Your task to perform on an android device: change the upload size in google photos Image 0: 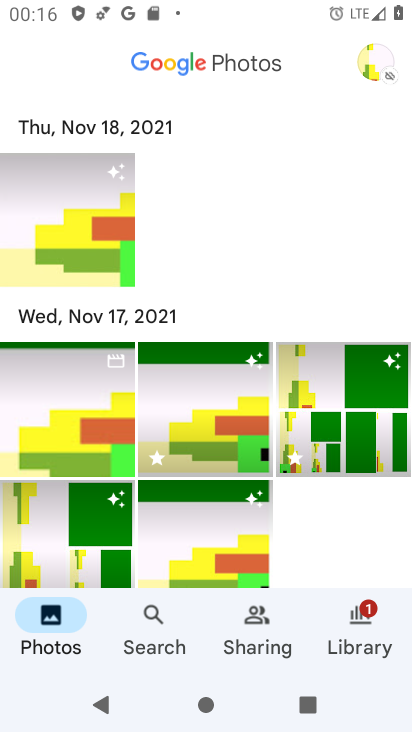
Step 0: click (381, 68)
Your task to perform on an android device: change the upload size in google photos Image 1: 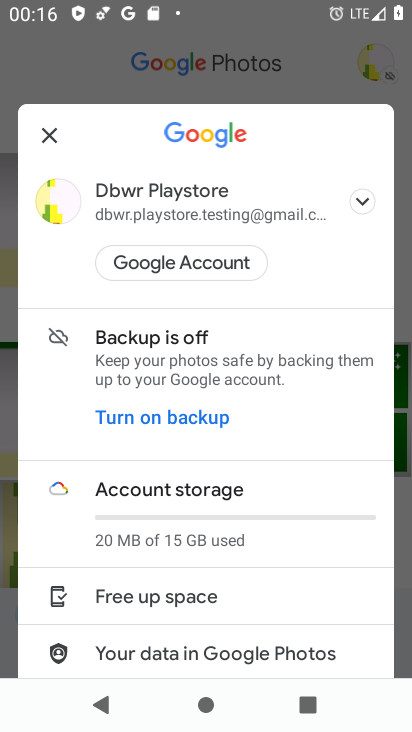
Step 1: drag from (288, 526) to (317, 185)
Your task to perform on an android device: change the upload size in google photos Image 2: 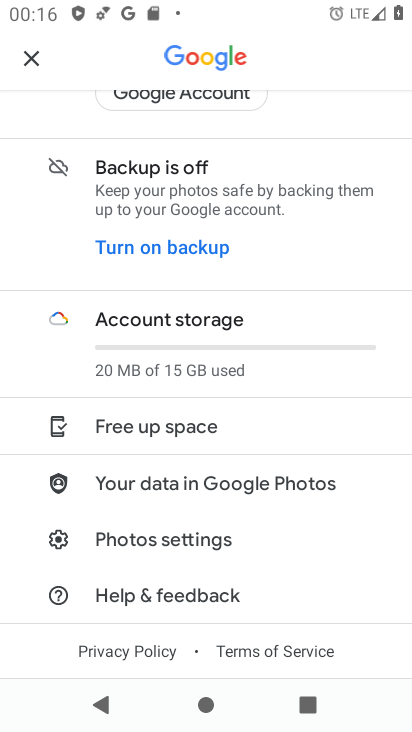
Step 2: click (217, 524)
Your task to perform on an android device: change the upload size in google photos Image 3: 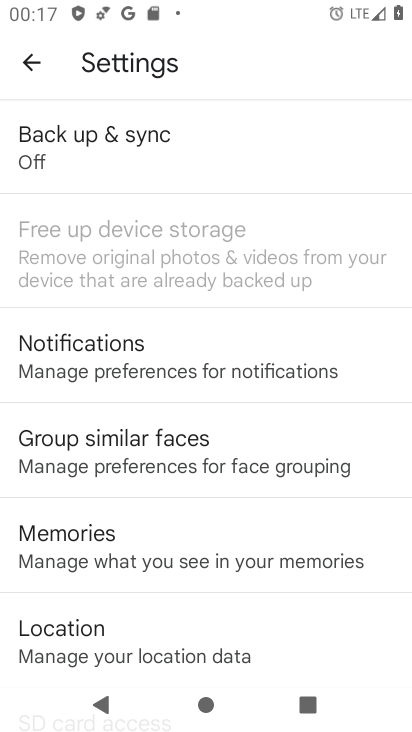
Step 3: drag from (234, 615) to (238, 712)
Your task to perform on an android device: change the upload size in google photos Image 4: 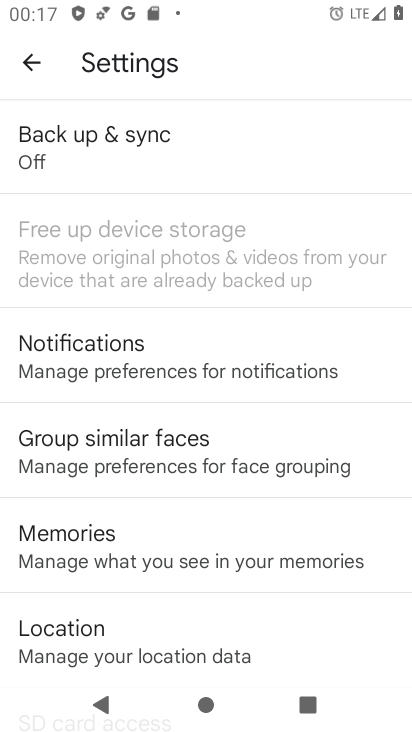
Step 4: click (188, 171)
Your task to perform on an android device: change the upload size in google photos Image 5: 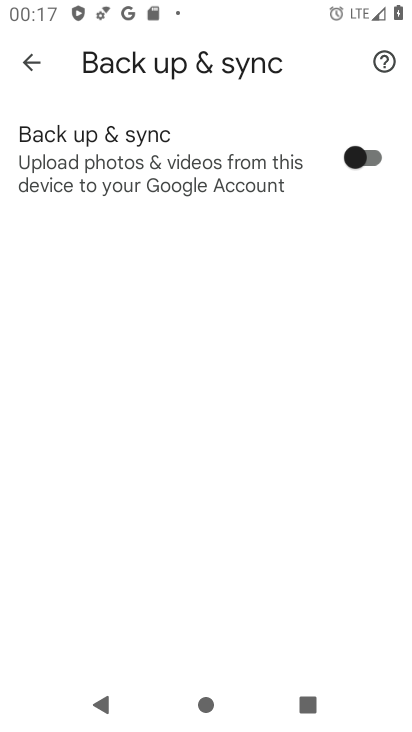
Step 5: click (383, 156)
Your task to perform on an android device: change the upload size in google photos Image 6: 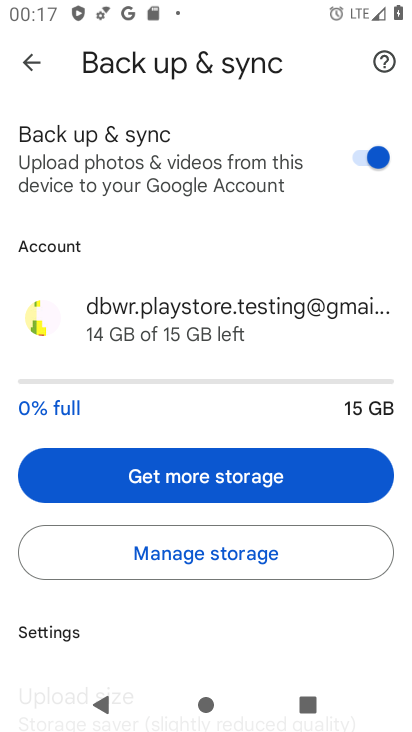
Step 6: drag from (267, 656) to (289, 164)
Your task to perform on an android device: change the upload size in google photos Image 7: 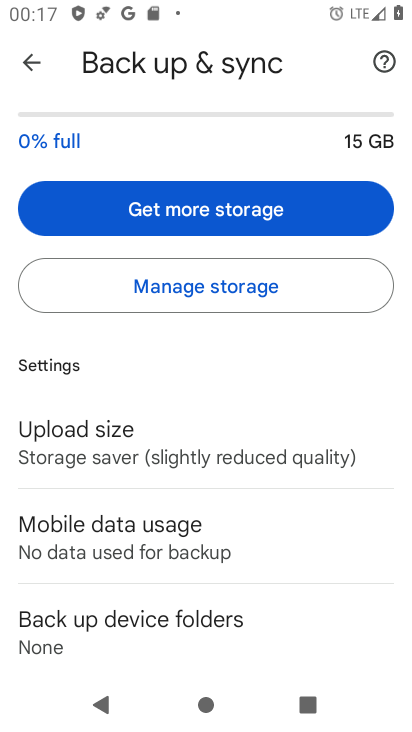
Step 7: click (206, 448)
Your task to perform on an android device: change the upload size in google photos Image 8: 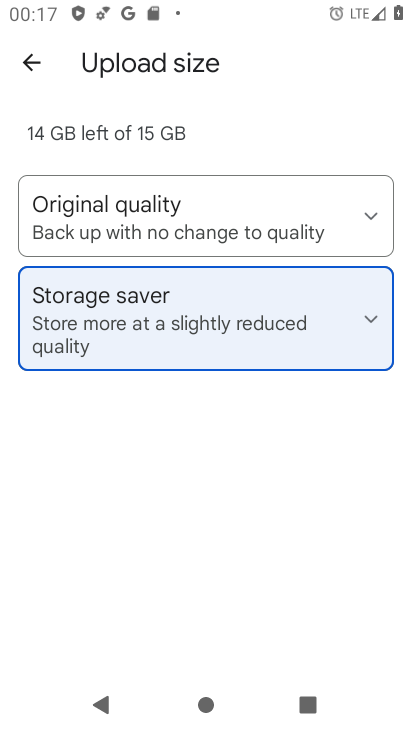
Step 8: click (211, 218)
Your task to perform on an android device: change the upload size in google photos Image 9: 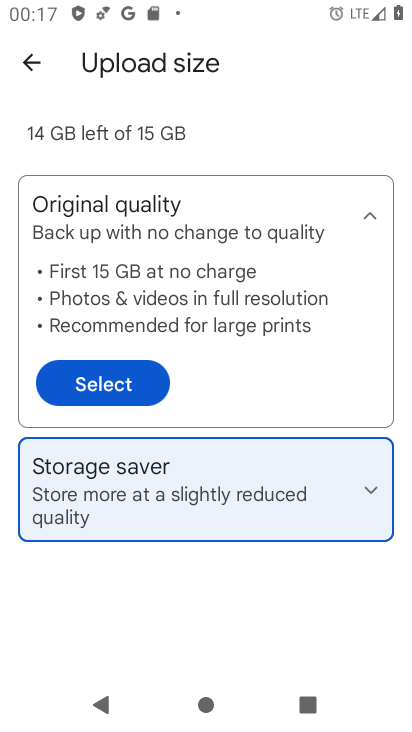
Step 9: click (127, 371)
Your task to perform on an android device: change the upload size in google photos Image 10: 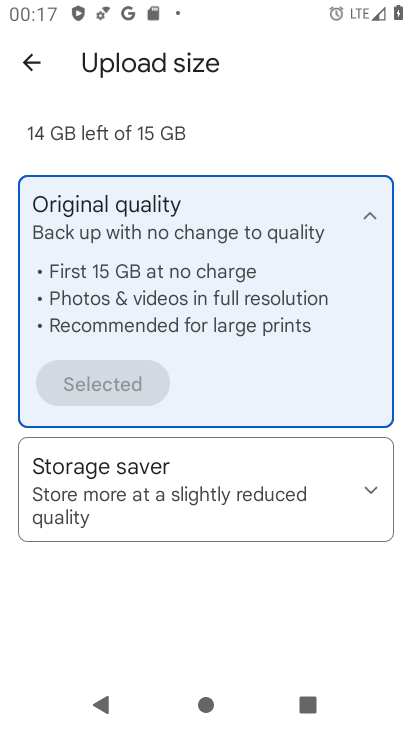
Step 10: task complete